Your task to perform on an android device: install app "PlayWell" Image 0: 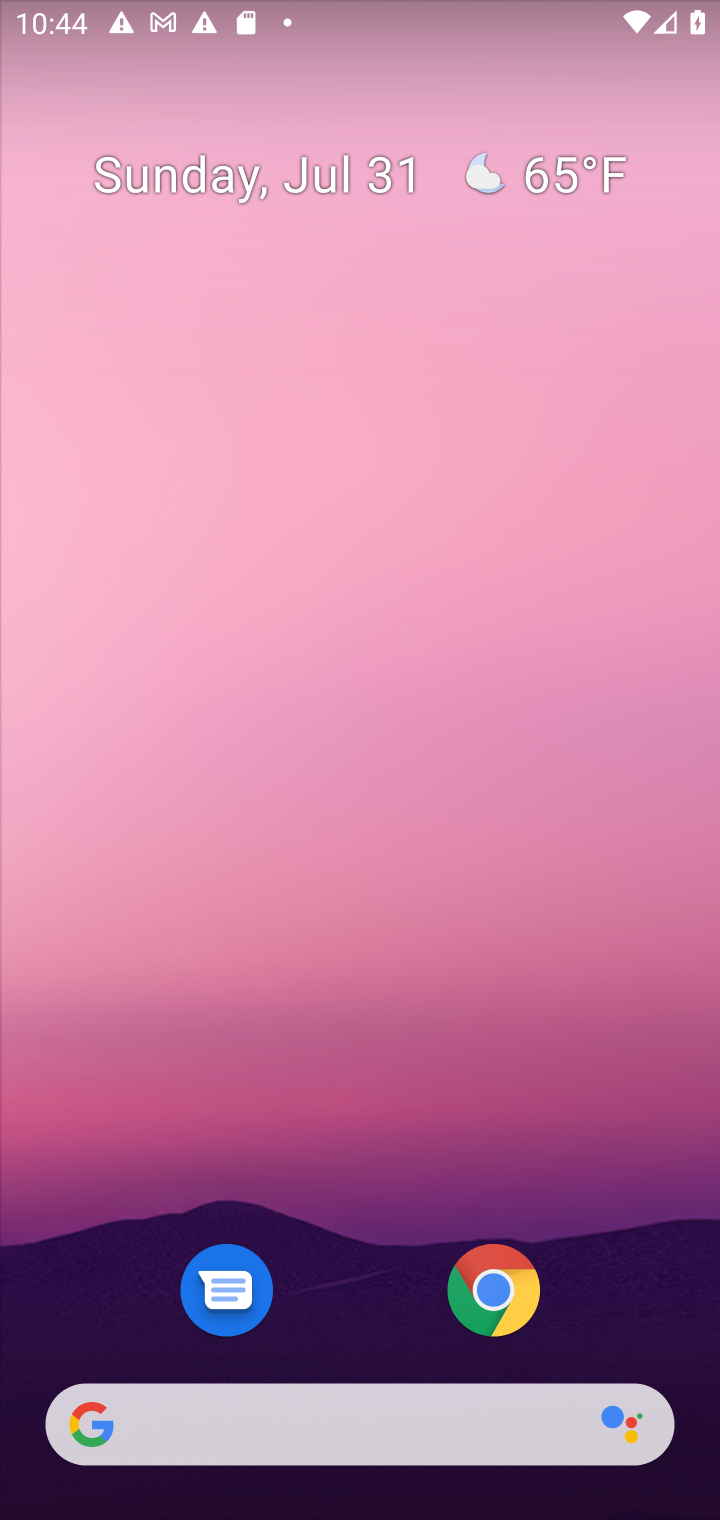
Step 0: press home button
Your task to perform on an android device: install app "PlayWell" Image 1: 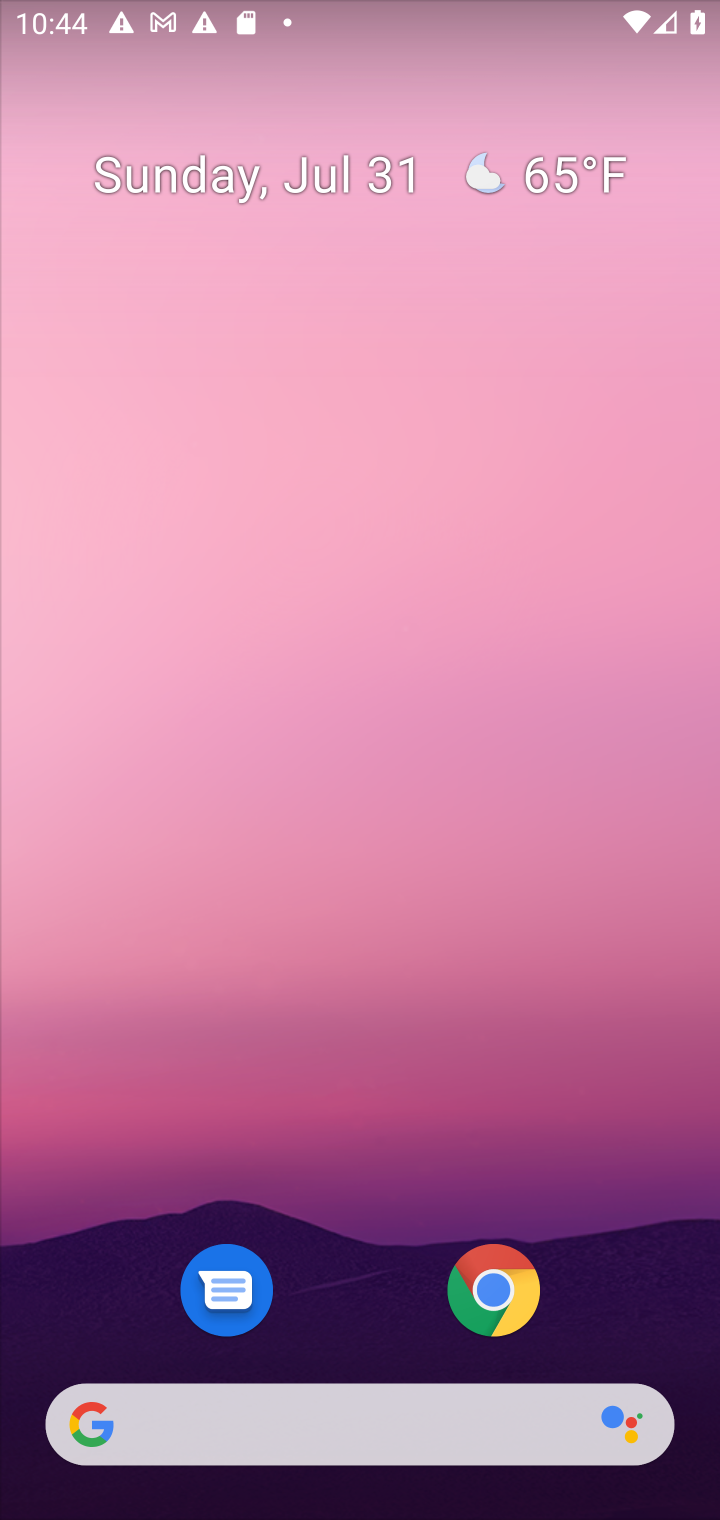
Step 1: drag from (583, 999) to (492, 94)
Your task to perform on an android device: install app "PlayWell" Image 2: 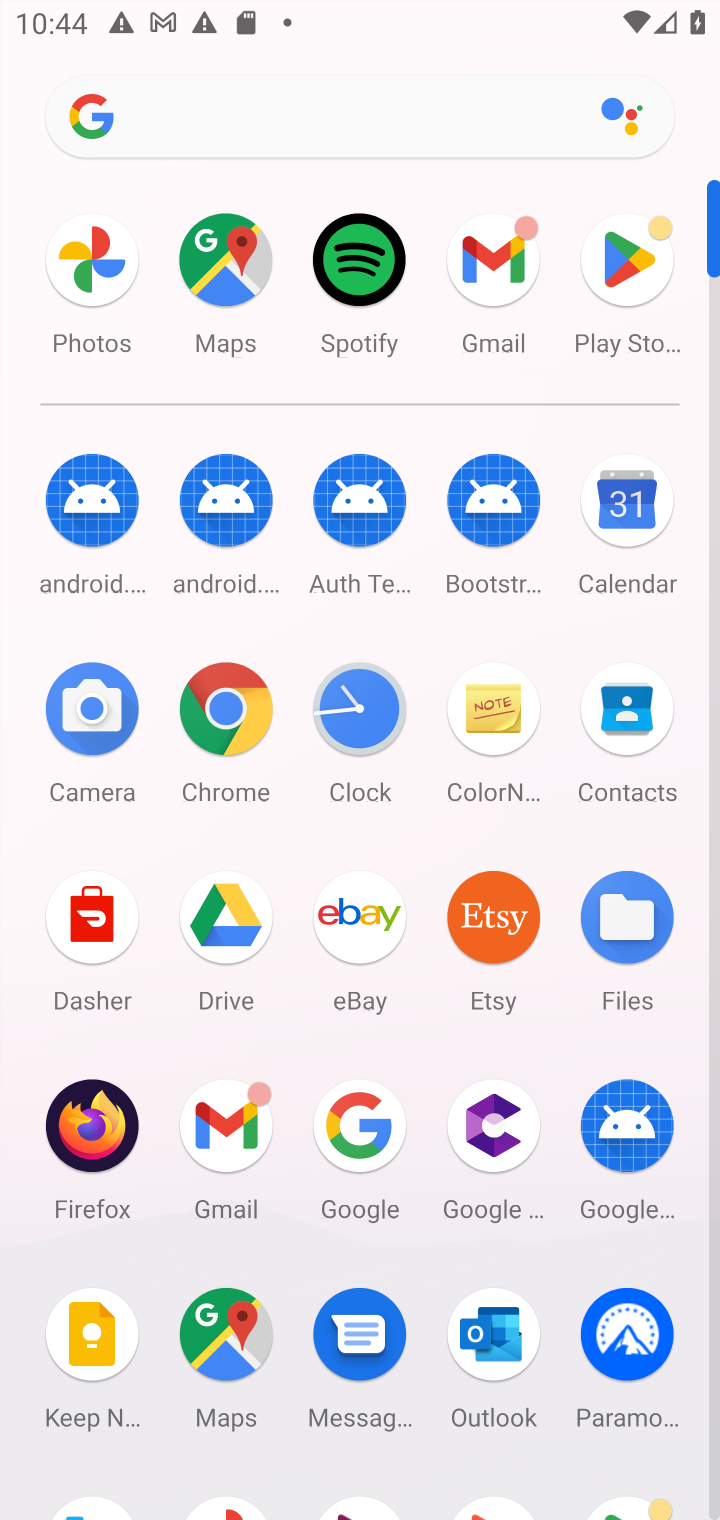
Step 2: click (657, 252)
Your task to perform on an android device: install app "PlayWell" Image 3: 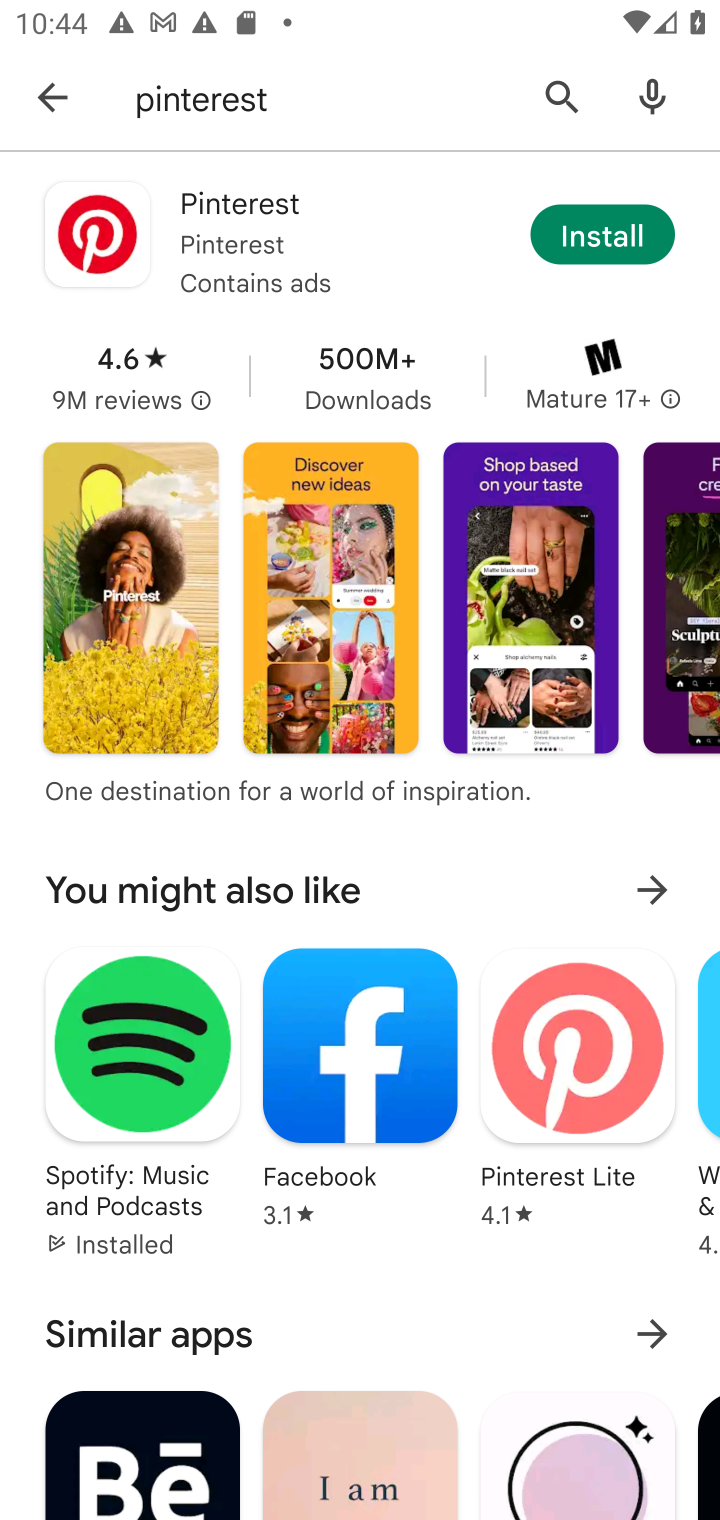
Step 3: click (563, 81)
Your task to perform on an android device: install app "PlayWell" Image 4: 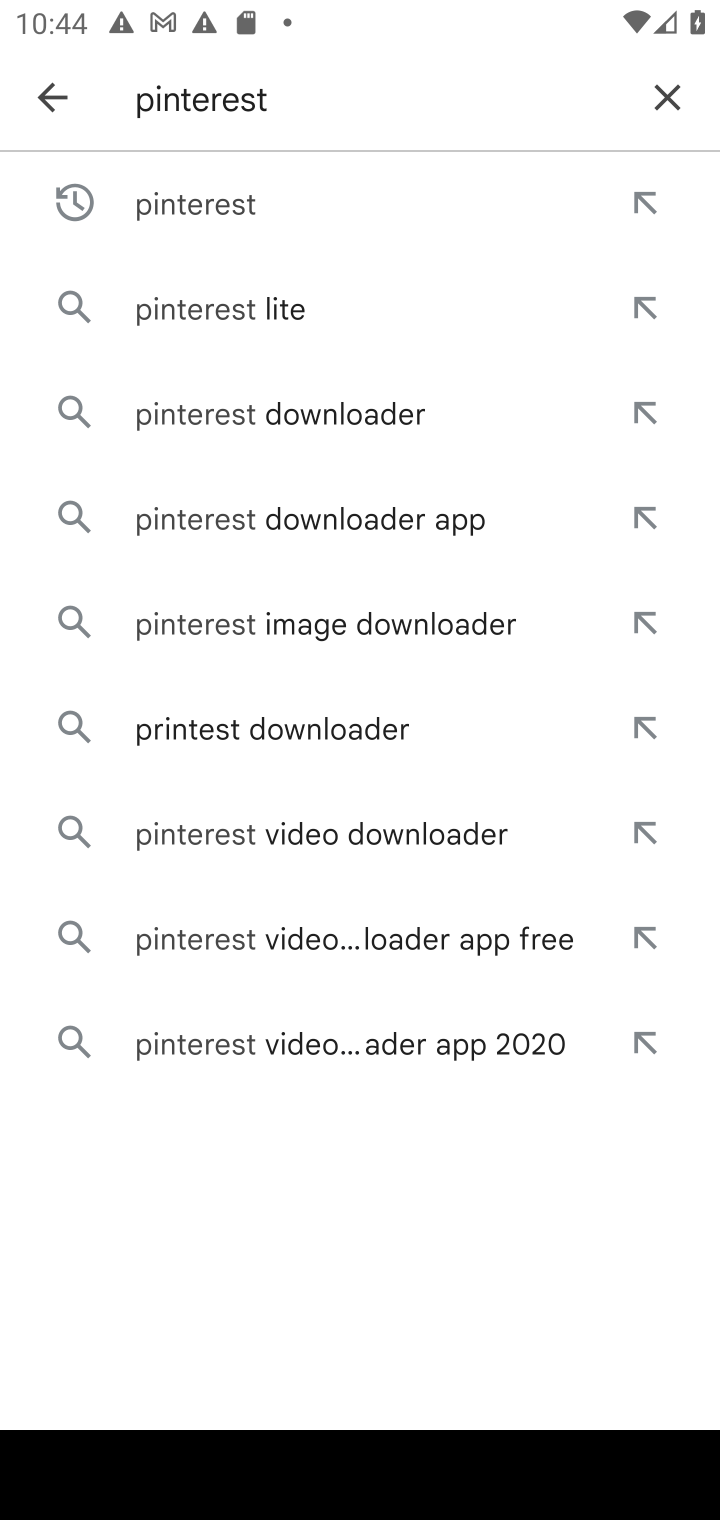
Step 4: click (660, 94)
Your task to perform on an android device: install app "PlayWell" Image 5: 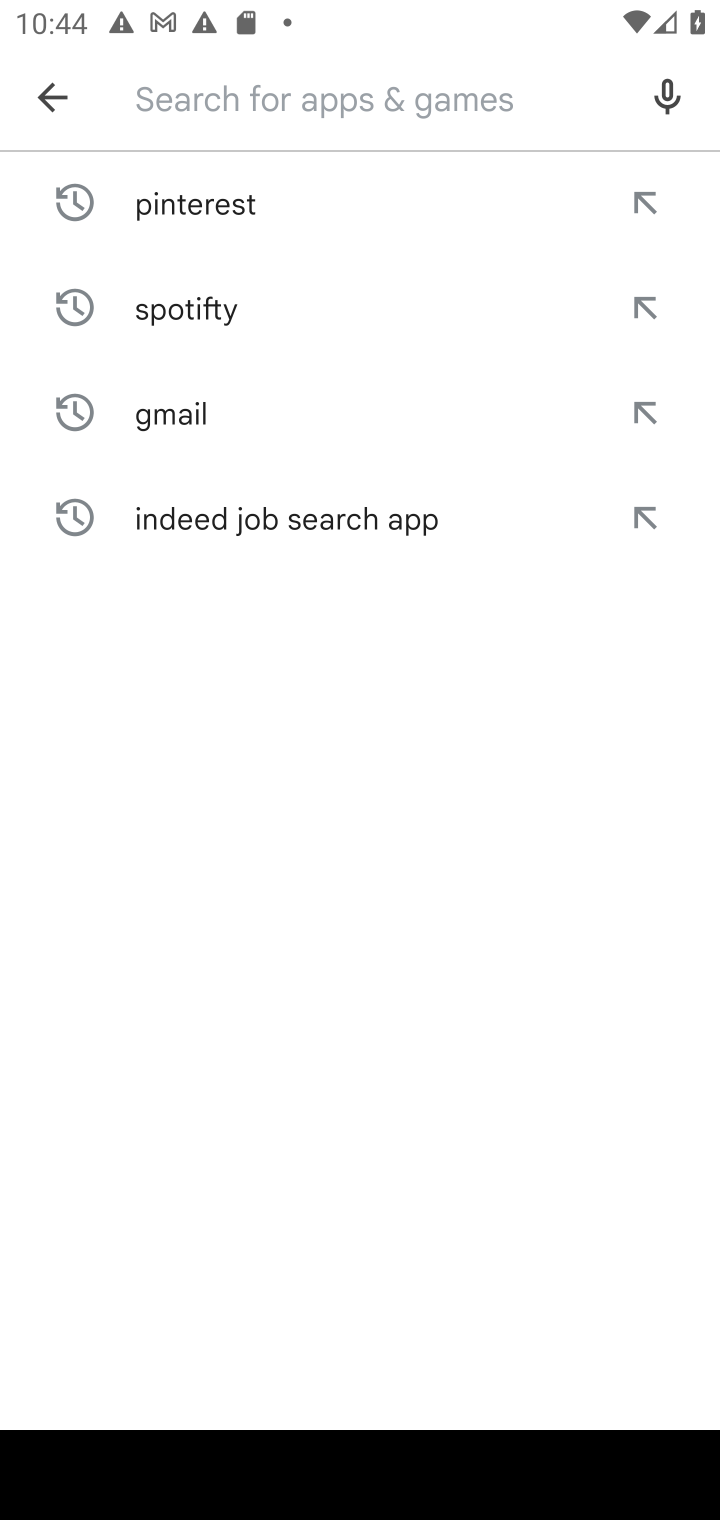
Step 5: type "play well"
Your task to perform on an android device: install app "PlayWell" Image 6: 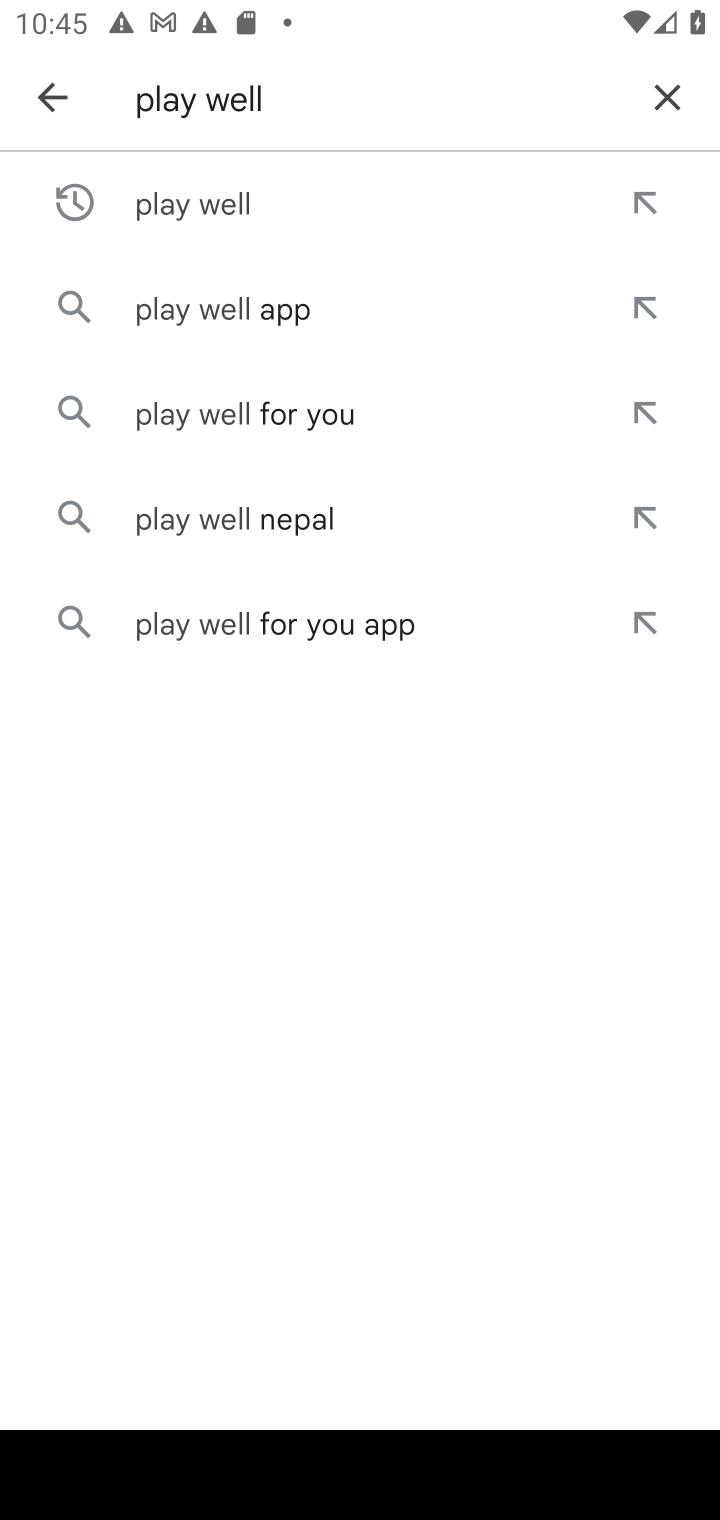
Step 6: click (274, 304)
Your task to perform on an android device: install app "PlayWell" Image 7: 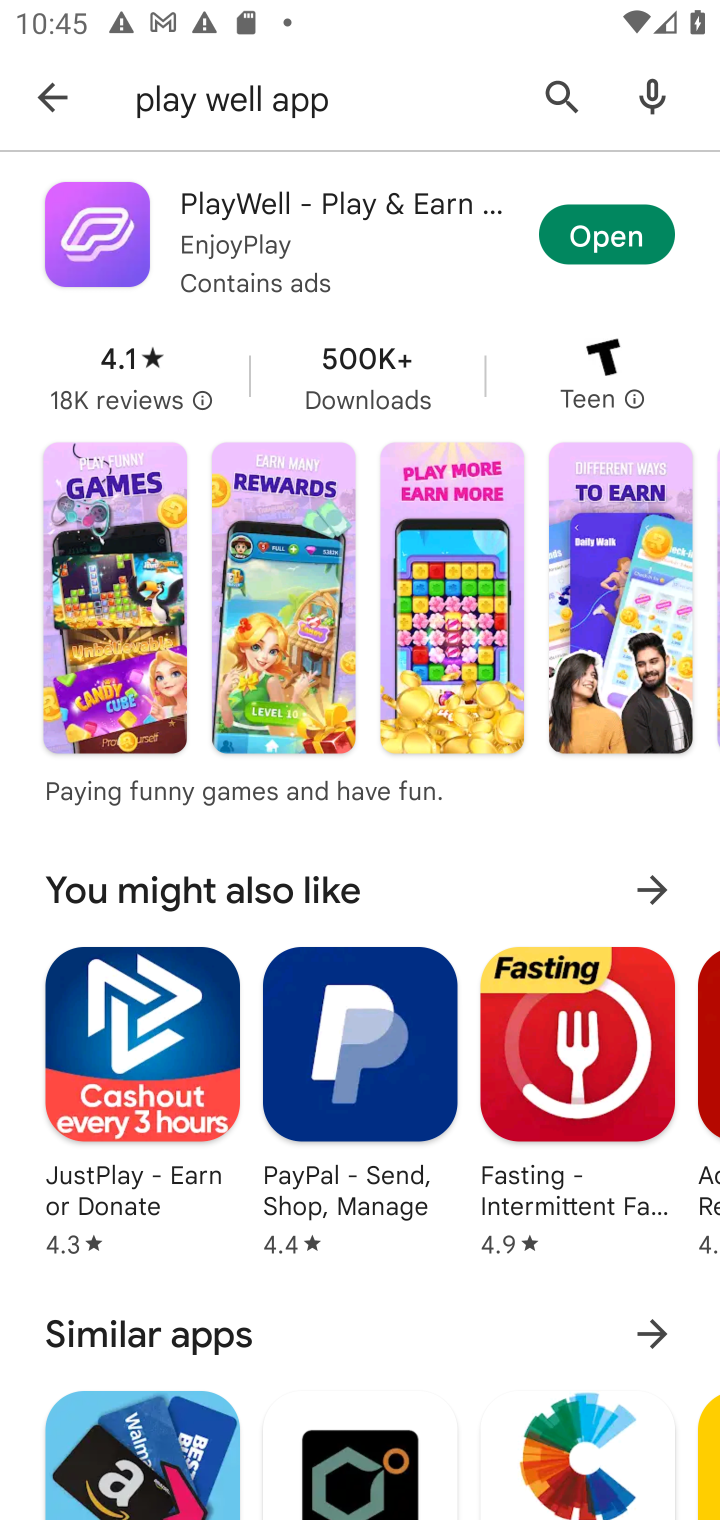
Step 7: task complete